Your task to perform on an android device: turn off airplane mode Image 0: 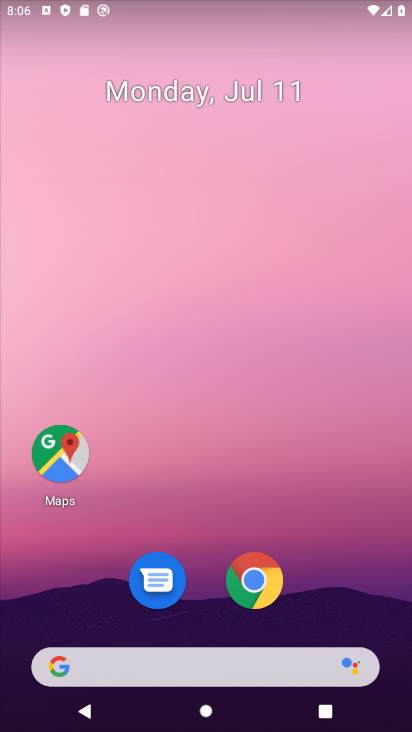
Step 0: drag from (383, 646) to (236, 159)
Your task to perform on an android device: turn off airplane mode Image 1: 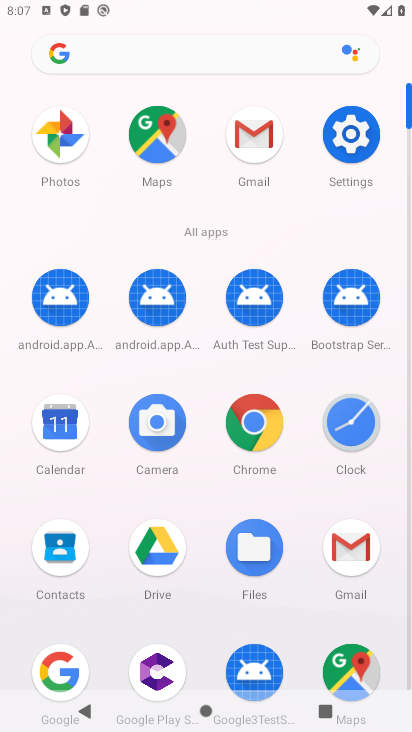
Step 1: task complete